Your task to perform on an android device: Open the web browser Image 0: 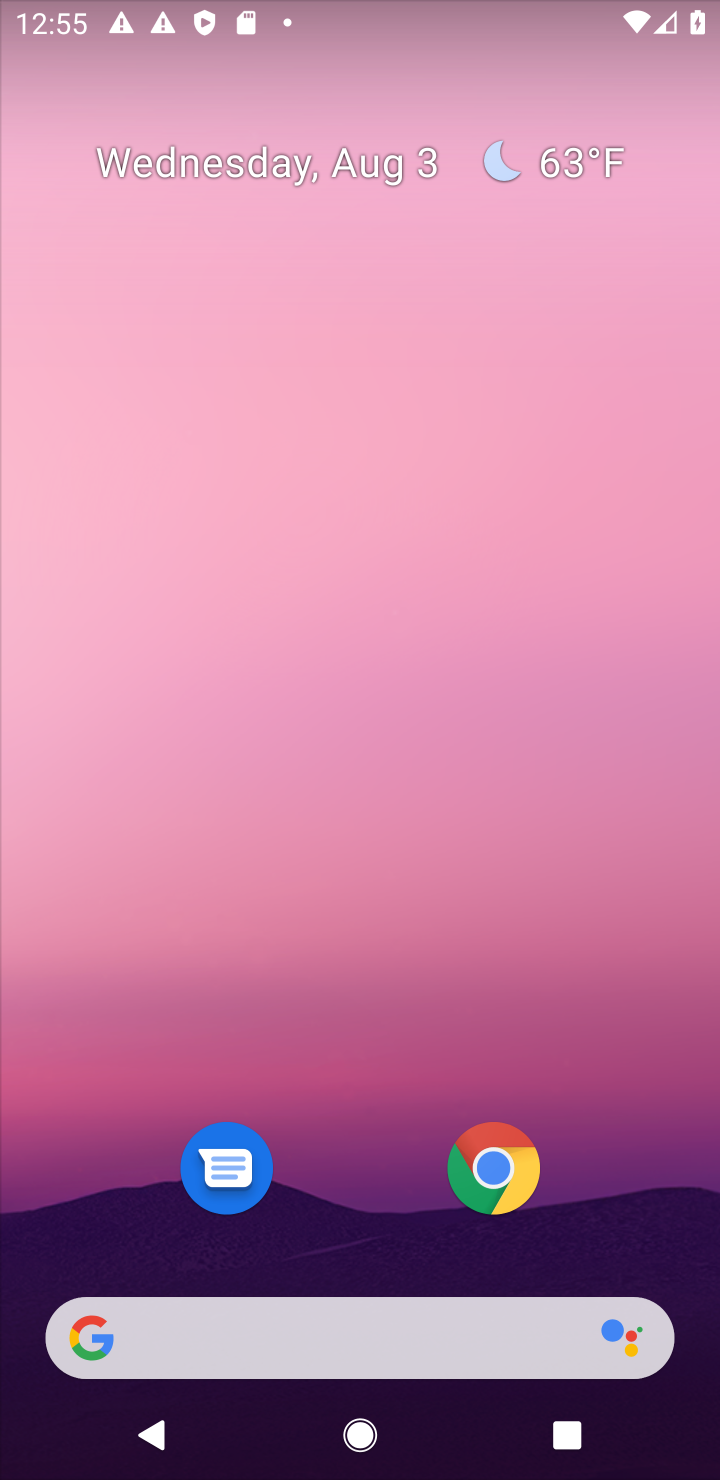
Step 0: click (492, 1175)
Your task to perform on an android device: Open the web browser Image 1: 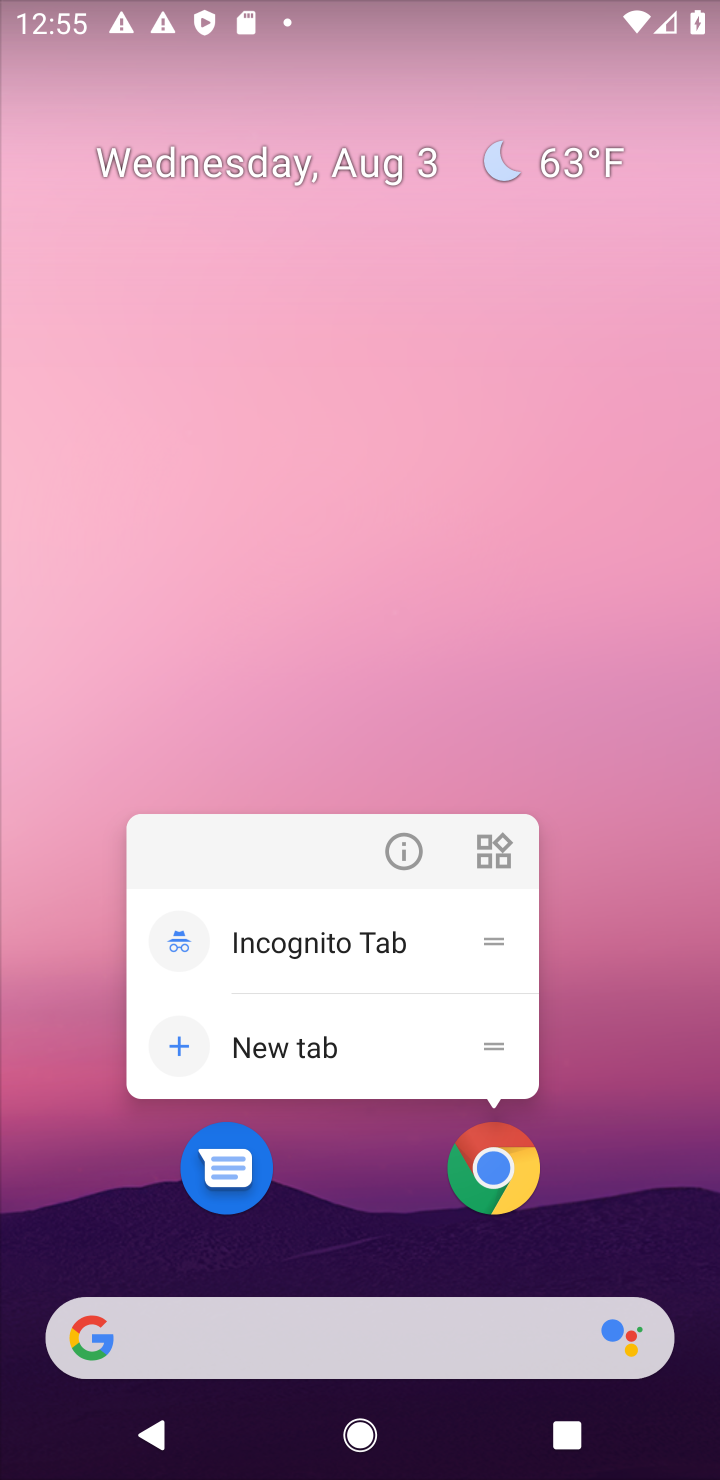
Step 1: click (492, 1169)
Your task to perform on an android device: Open the web browser Image 2: 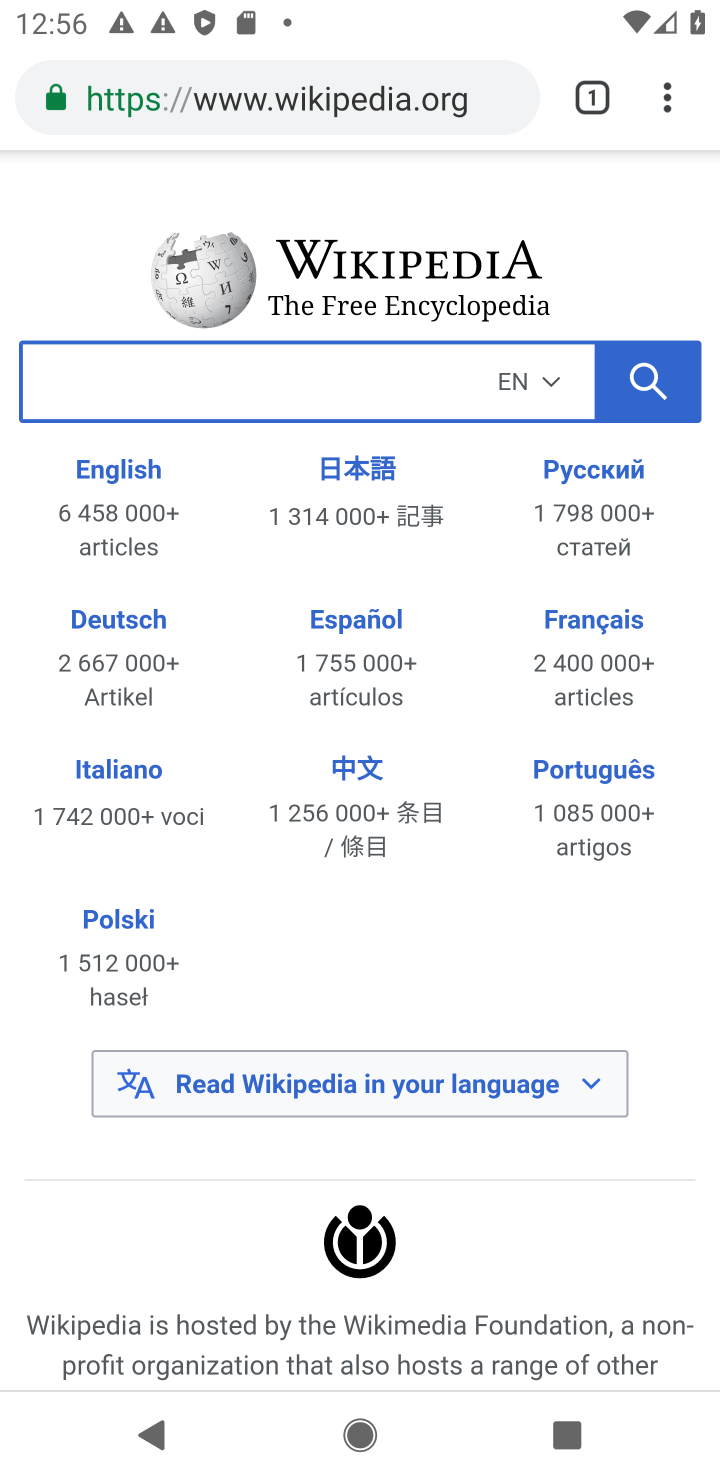
Step 2: task complete